Your task to perform on an android device: set default search engine in the chrome app Image 0: 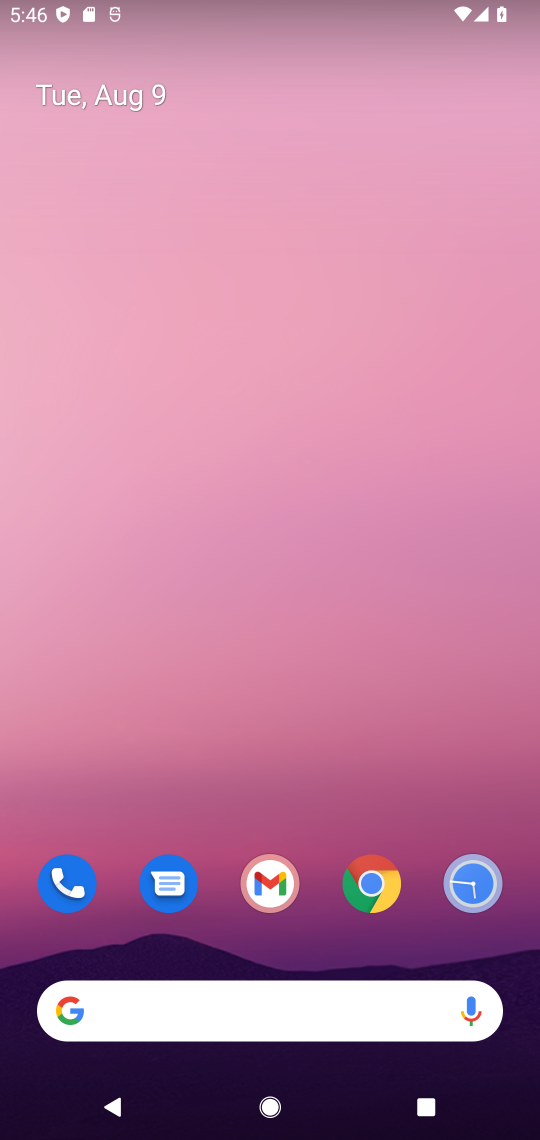
Step 0: click (377, 872)
Your task to perform on an android device: set default search engine in the chrome app Image 1: 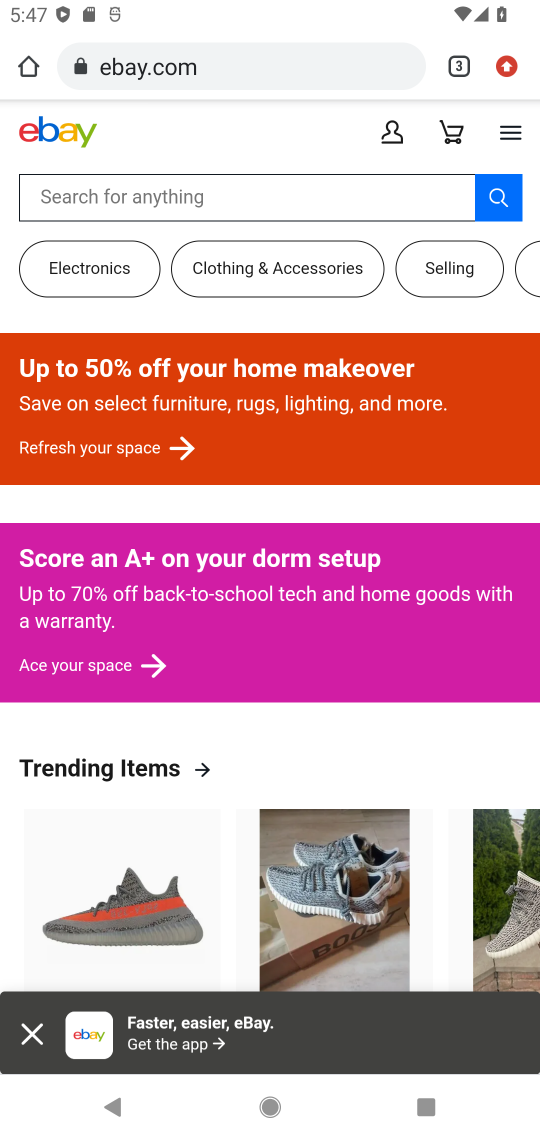
Step 1: click (508, 73)
Your task to perform on an android device: set default search engine in the chrome app Image 2: 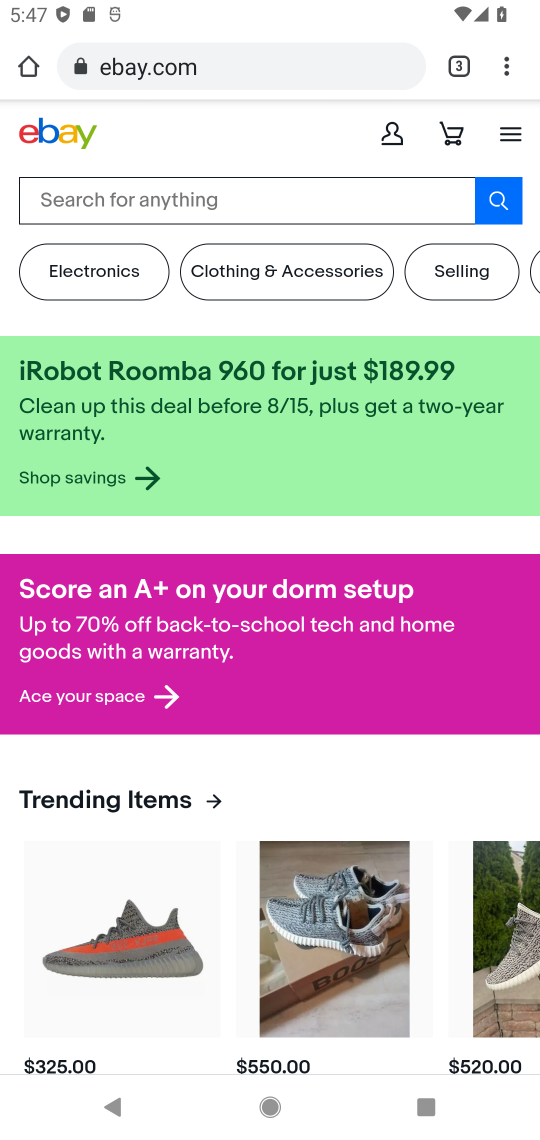
Step 2: click (508, 73)
Your task to perform on an android device: set default search engine in the chrome app Image 3: 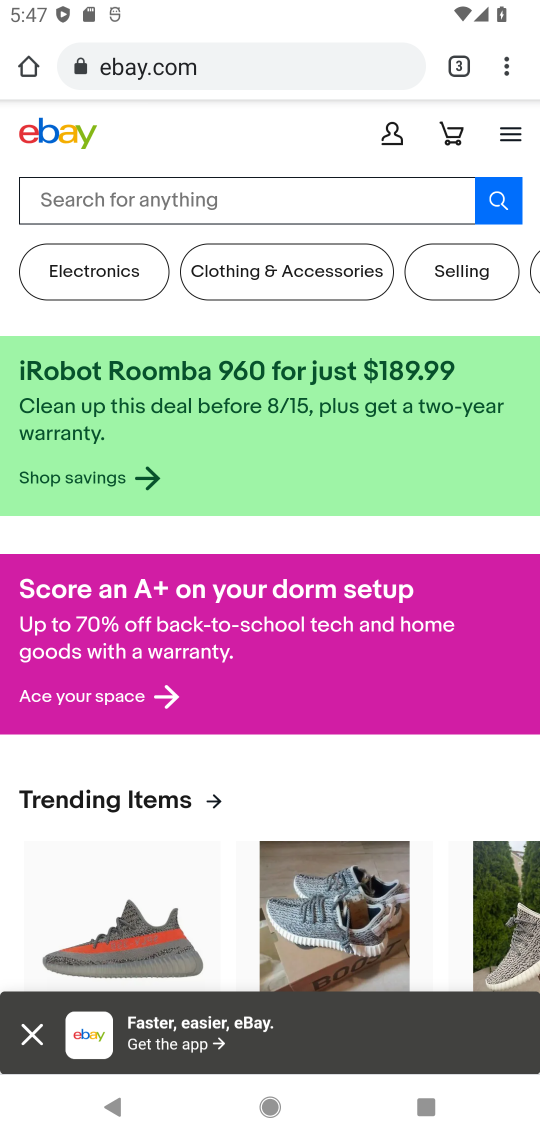
Step 3: click (507, 75)
Your task to perform on an android device: set default search engine in the chrome app Image 4: 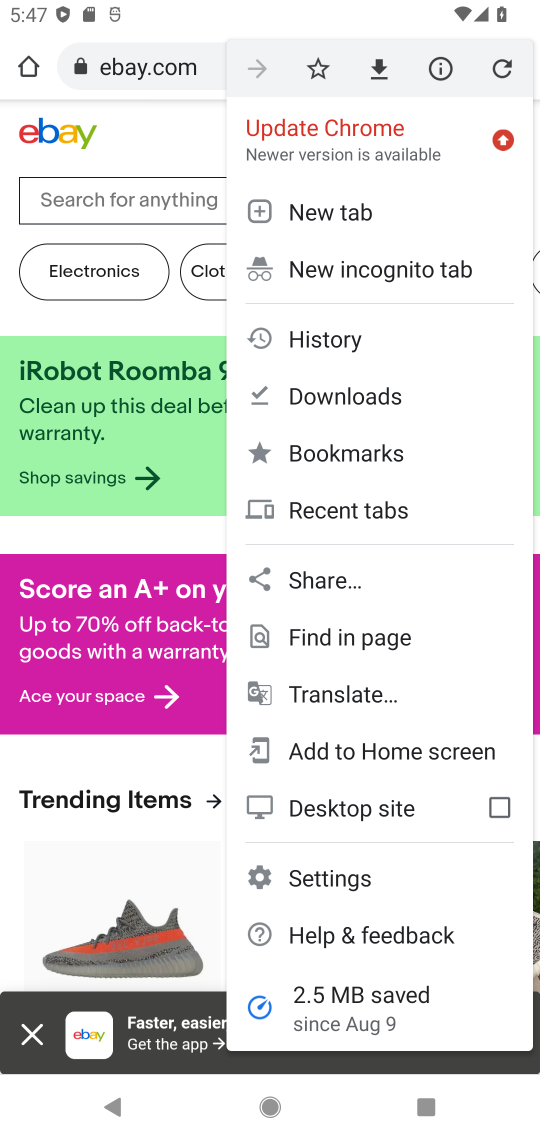
Step 4: click (346, 879)
Your task to perform on an android device: set default search engine in the chrome app Image 5: 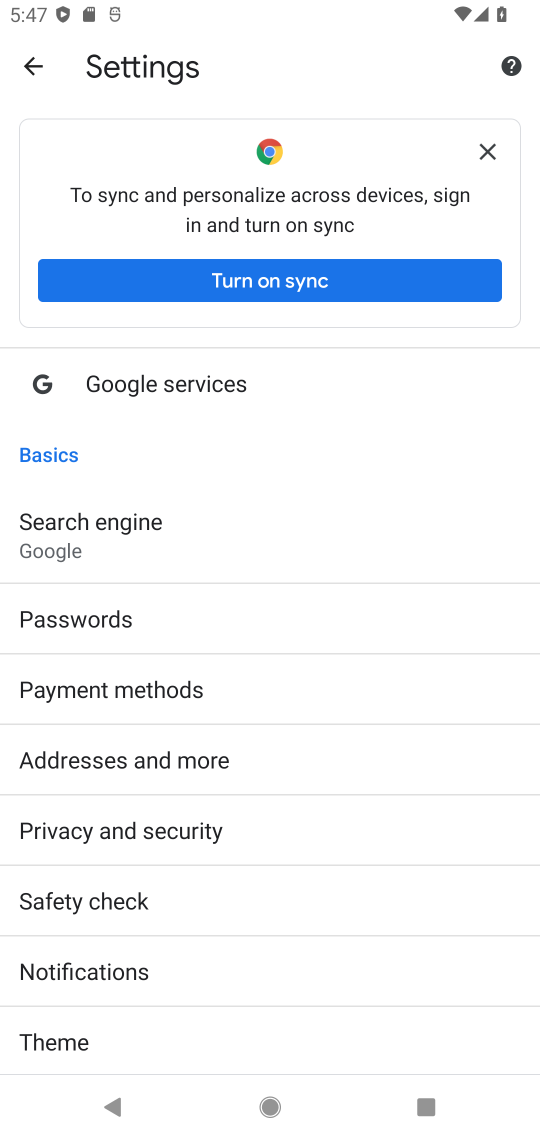
Step 5: click (135, 507)
Your task to perform on an android device: set default search engine in the chrome app Image 6: 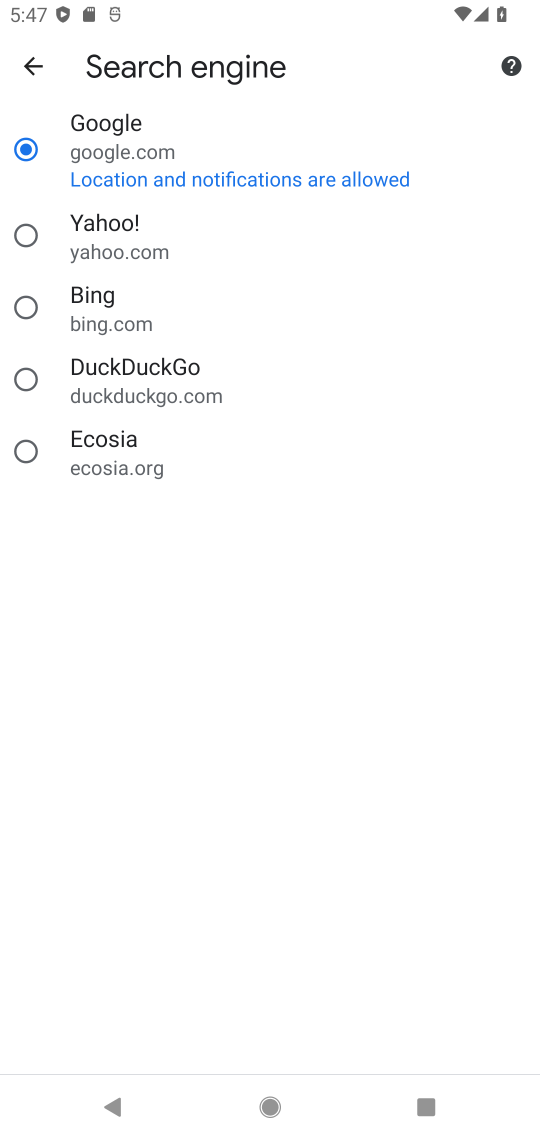
Step 6: task complete